Your task to perform on an android device: Open the Play Movies app and select the watchlist tab. Image 0: 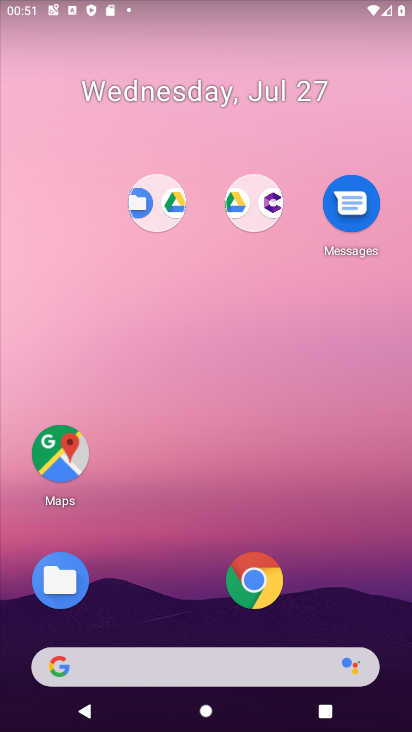
Step 0: drag from (162, 603) to (245, 79)
Your task to perform on an android device: Open the Play Movies app and select the watchlist tab. Image 1: 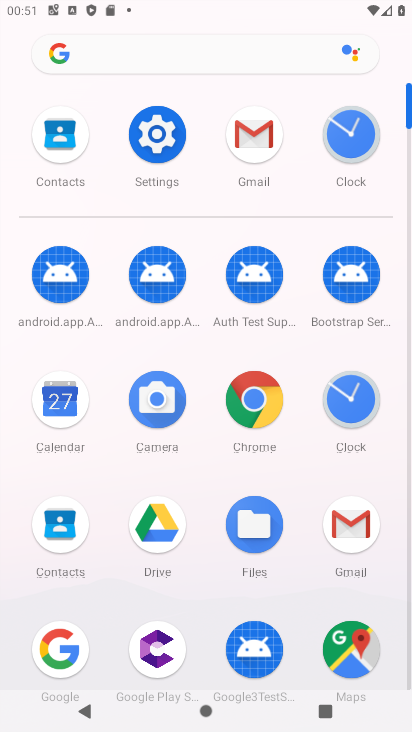
Step 1: drag from (109, 582) to (153, 262)
Your task to perform on an android device: Open the Play Movies app and select the watchlist tab. Image 2: 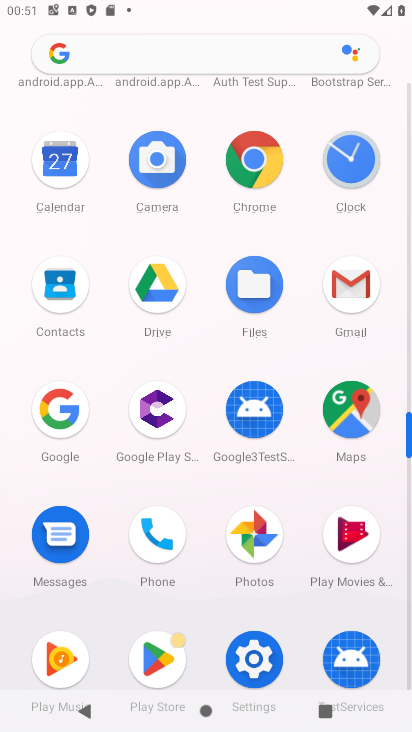
Step 2: click (342, 517)
Your task to perform on an android device: Open the Play Movies app and select the watchlist tab. Image 3: 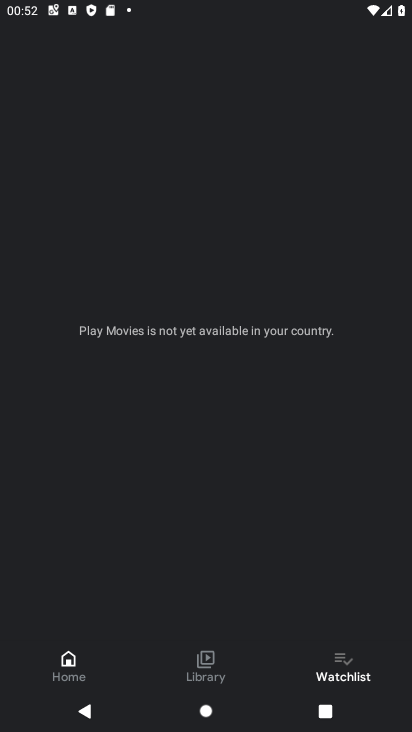
Step 3: click (350, 654)
Your task to perform on an android device: Open the Play Movies app and select the watchlist tab. Image 4: 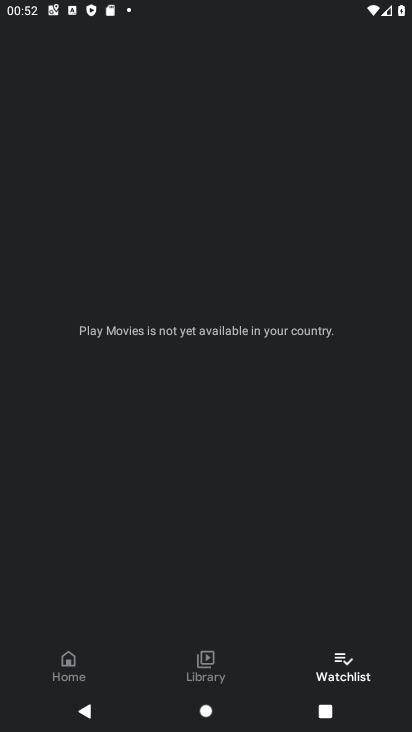
Step 4: task complete